Your task to perform on an android device: Clear all items from cart on amazon. Add lg ultragear to the cart on amazon Image 0: 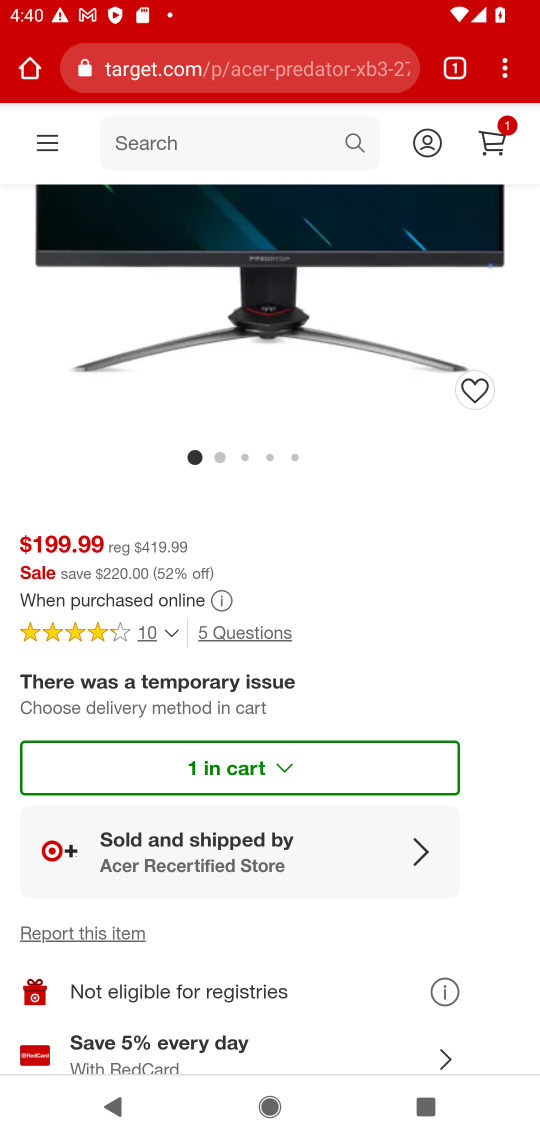
Step 0: press home button
Your task to perform on an android device: Clear all items from cart on amazon. Add lg ultragear to the cart on amazon Image 1: 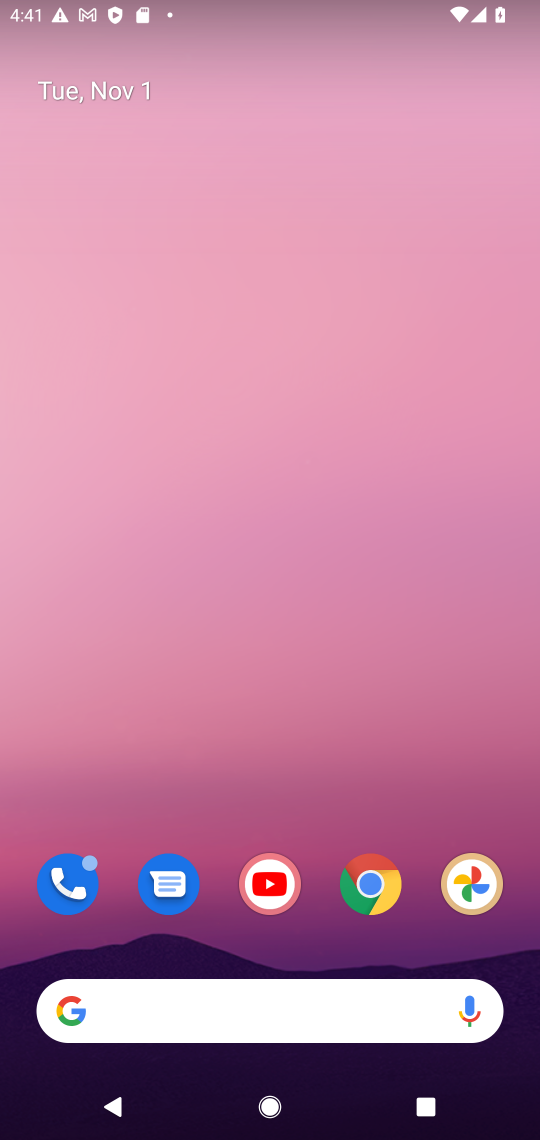
Step 1: click (374, 882)
Your task to perform on an android device: Clear all items from cart on amazon. Add lg ultragear to the cart on amazon Image 2: 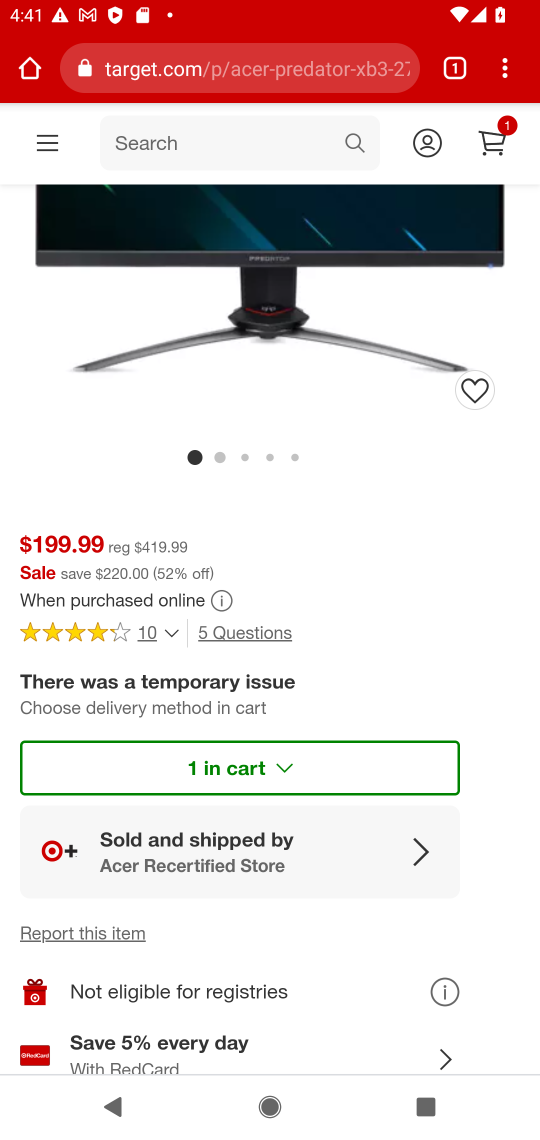
Step 2: click (285, 61)
Your task to perform on an android device: Clear all items from cart on amazon. Add lg ultragear to the cart on amazon Image 3: 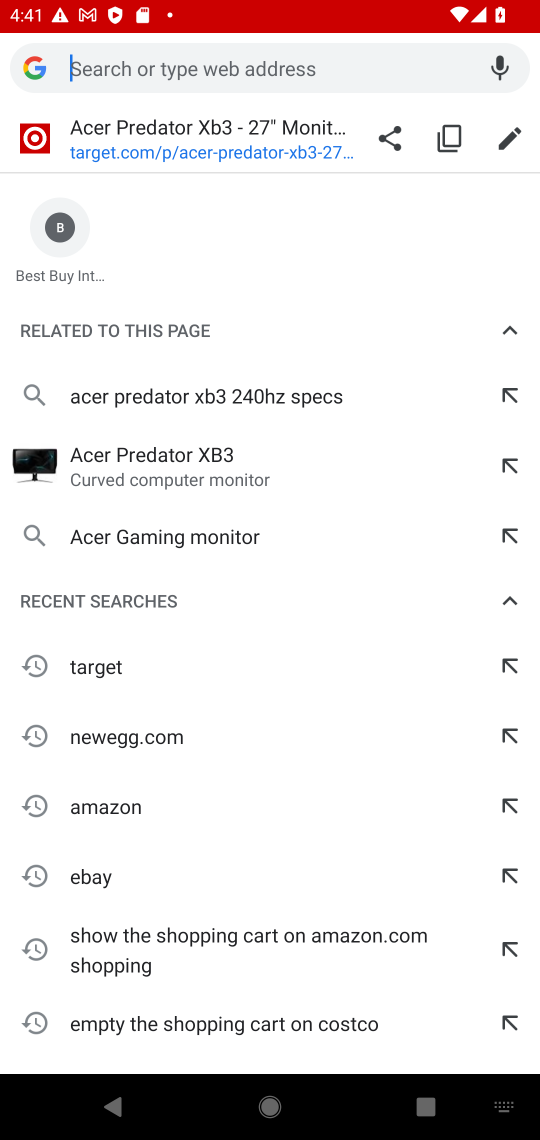
Step 3: type "amazon"
Your task to perform on an android device: Clear all items from cart on amazon. Add lg ultragear to the cart on amazon Image 4: 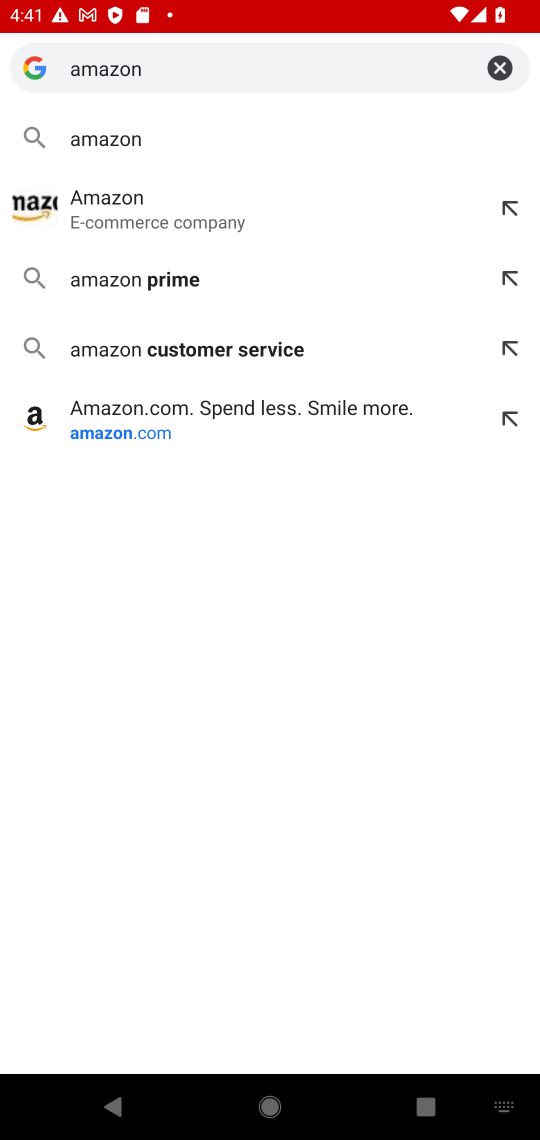
Step 4: click (131, 148)
Your task to perform on an android device: Clear all items from cart on amazon. Add lg ultragear to the cart on amazon Image 5: 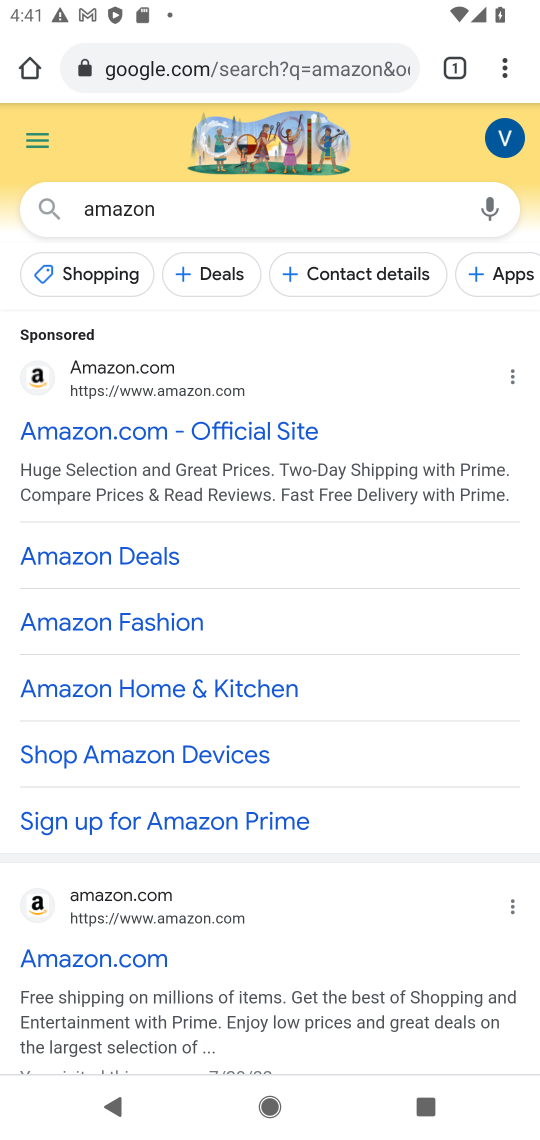
Step 5: click (143, 425)
Your task to perform on an android device: Clear all items from cart on amazon. Add lg ultragear to the cart on amazon Image 6: 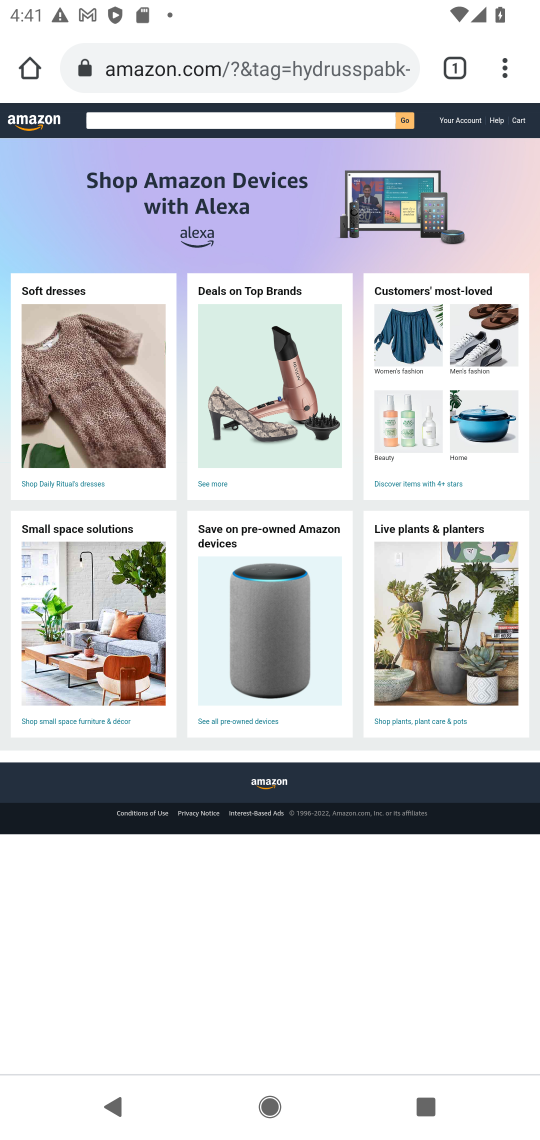
Step 6: click (232, 117)
Your task to perform on an android device: Clear all items from cart on amazon. Add lg ultragear to the cart on amazon Image 7: 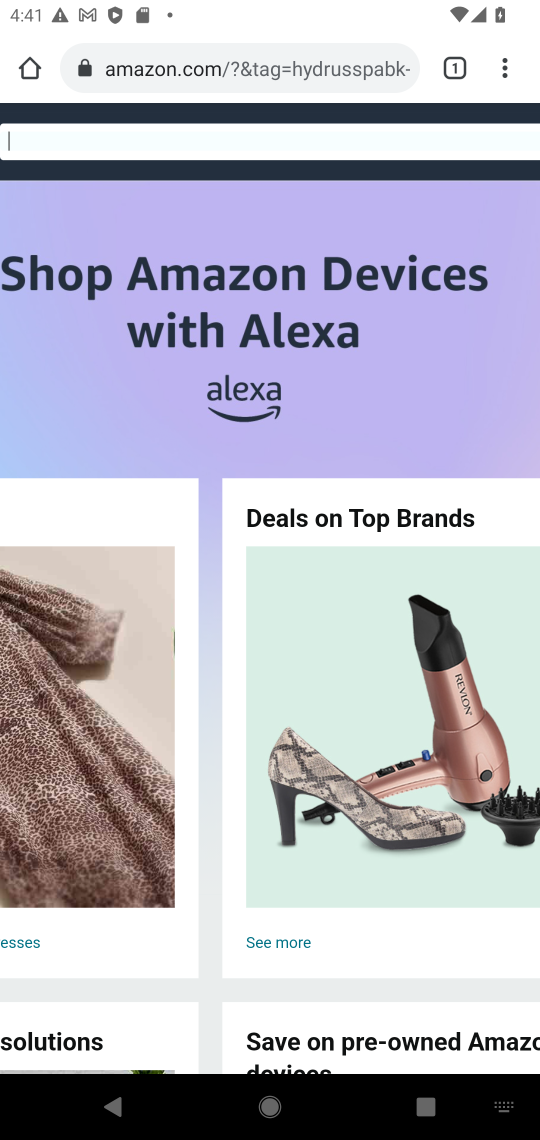
Step 7: type "lg ultragear"
Your task to perform on an android device: Clear all items from cart on amazon. Add lg ultragear to the cart on amazon Image 8: 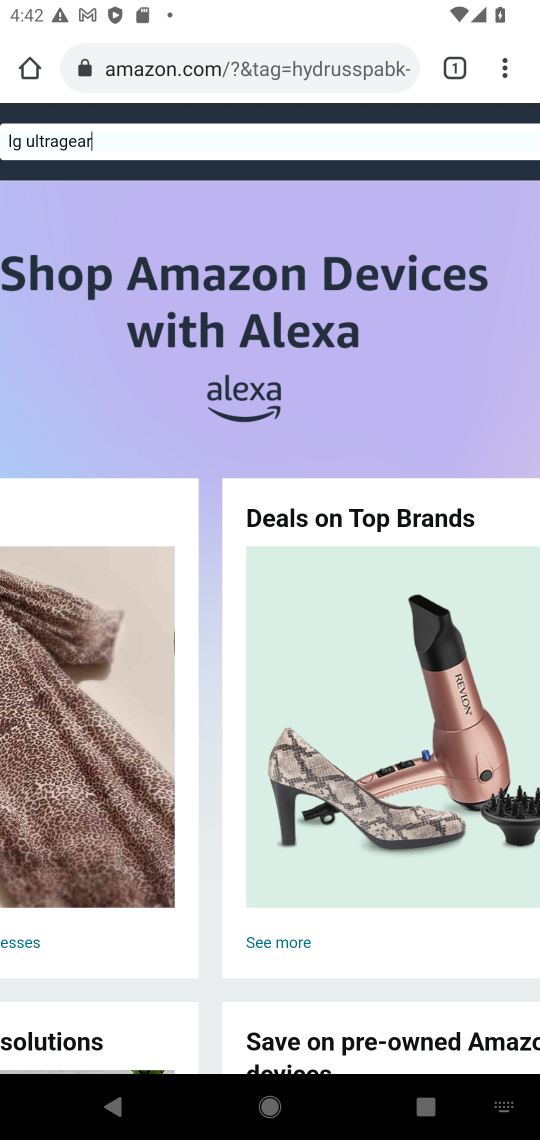
Step 8: drag from (385, 248) to (78, 216)
Your task to perform on an android device: Clear all items from cart on amazon. Add lg ultragear to the cart on amazon Image 9: 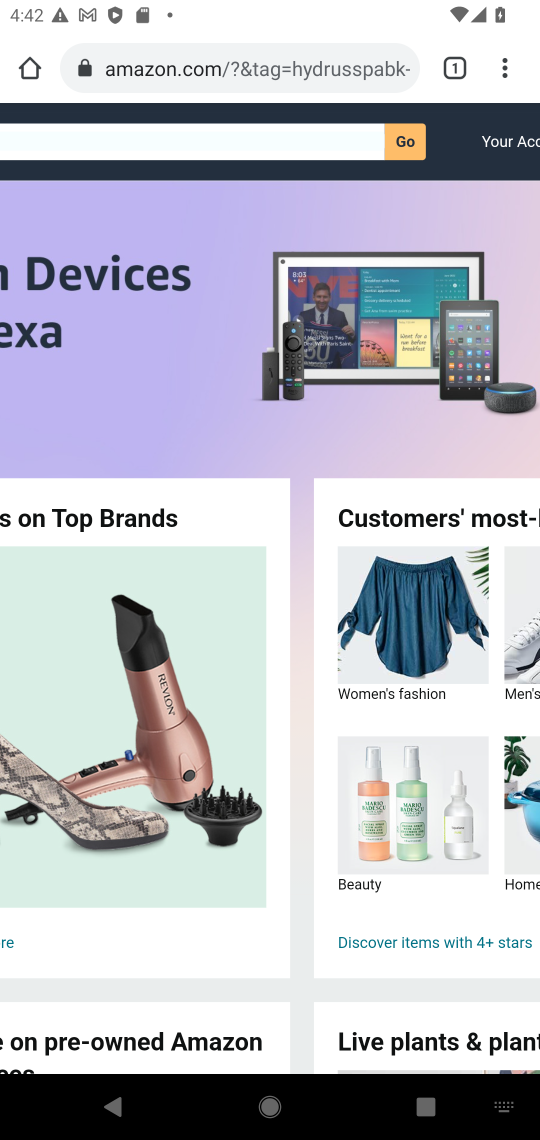
Step 9: click (406, 137)
Your task to perform on an android device: Clear all items from cart on amazon. Add lg ultragear to the cart on amazon Image 10: 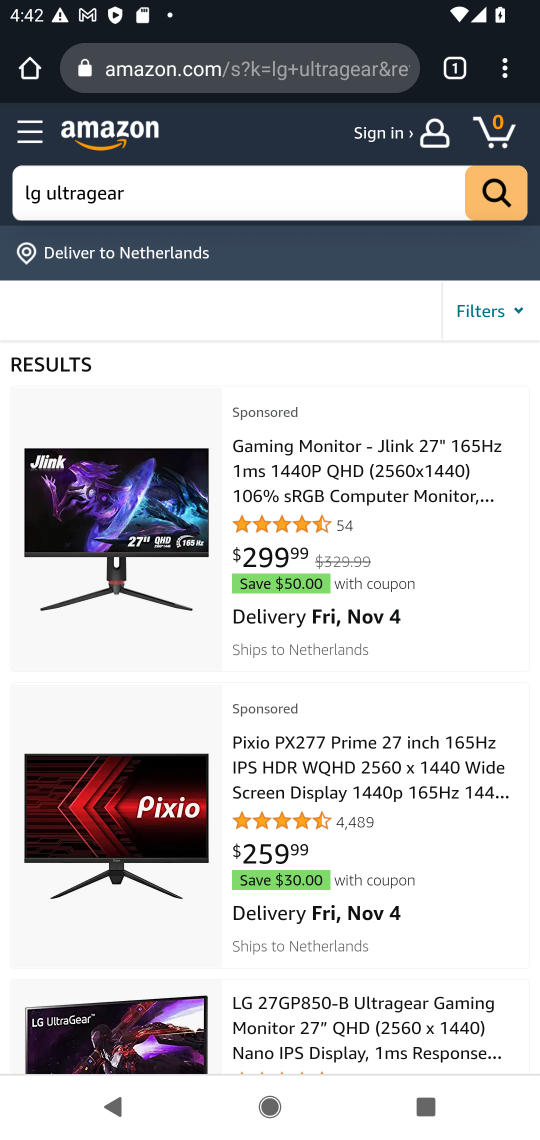
Step 10: click (387, 489)
Your task to perform on an android device: Clear all items from cart on amazon. Add lg ultragear to the cart on amazon Image 11: 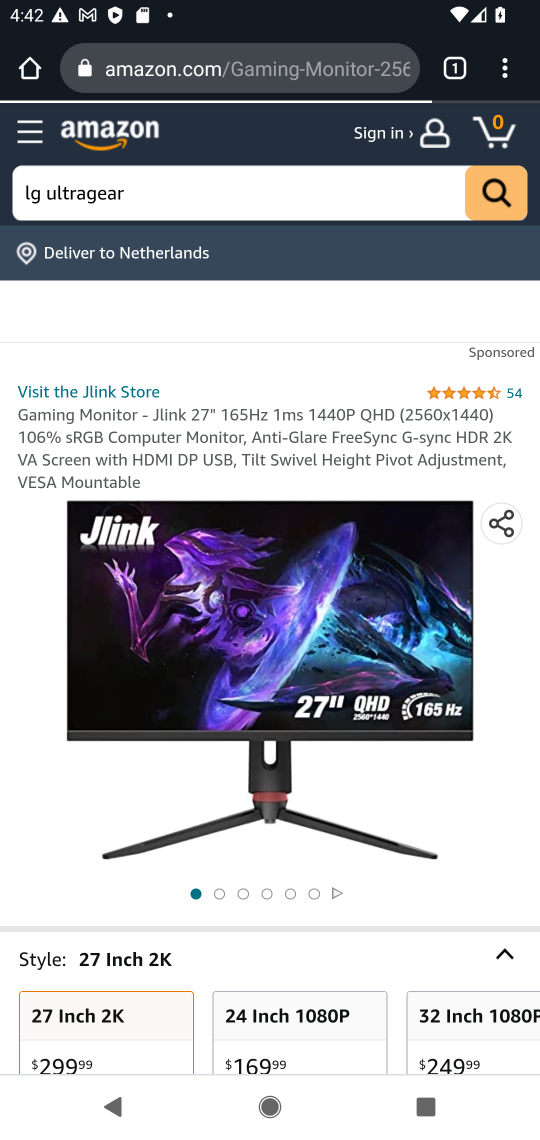
Step 11: drag from (312, 815) to (283, 361)
Your task to perform on an android device: Clear all items from cart on amazon. Add lg ultragear to the cart on amazon Image 12: 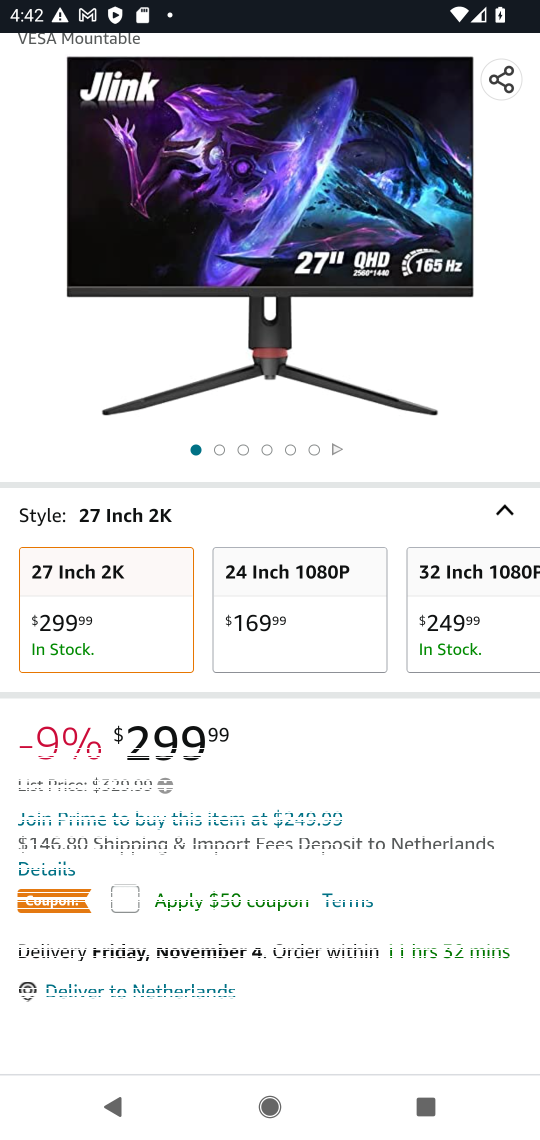
Step 12: drag from (275, 832) to (269, 450)
Your task to perform on an android device: Clear all items from cart on amazon. Add lg ultragear to the cart on amazon Image 13: 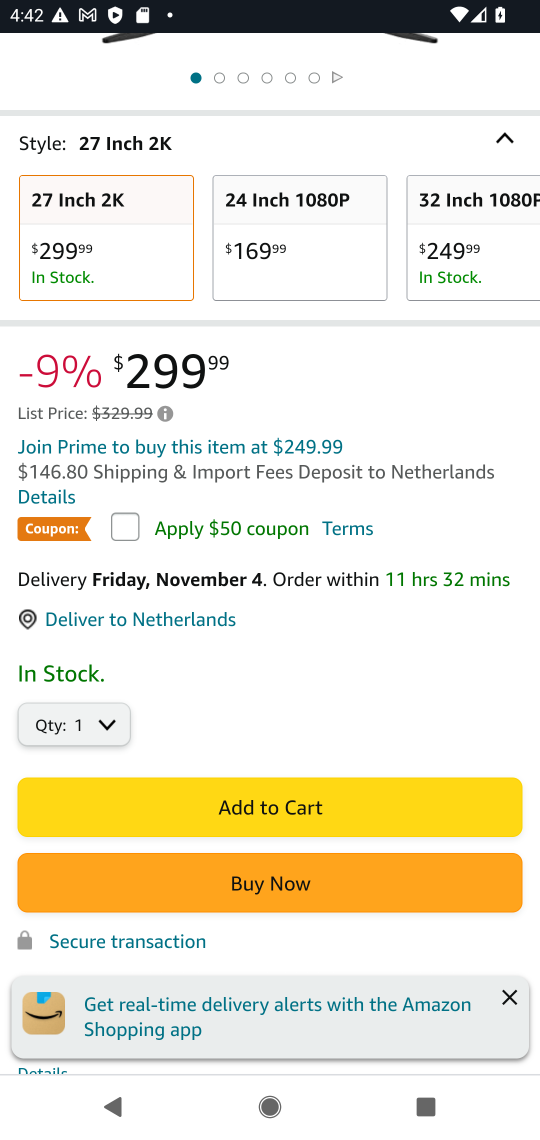
Step 13: click (307, 812)
Your task to perform on an android device: Clear all items from cart on amazon. Add lg ultragear to the cart on amazon Image 14: 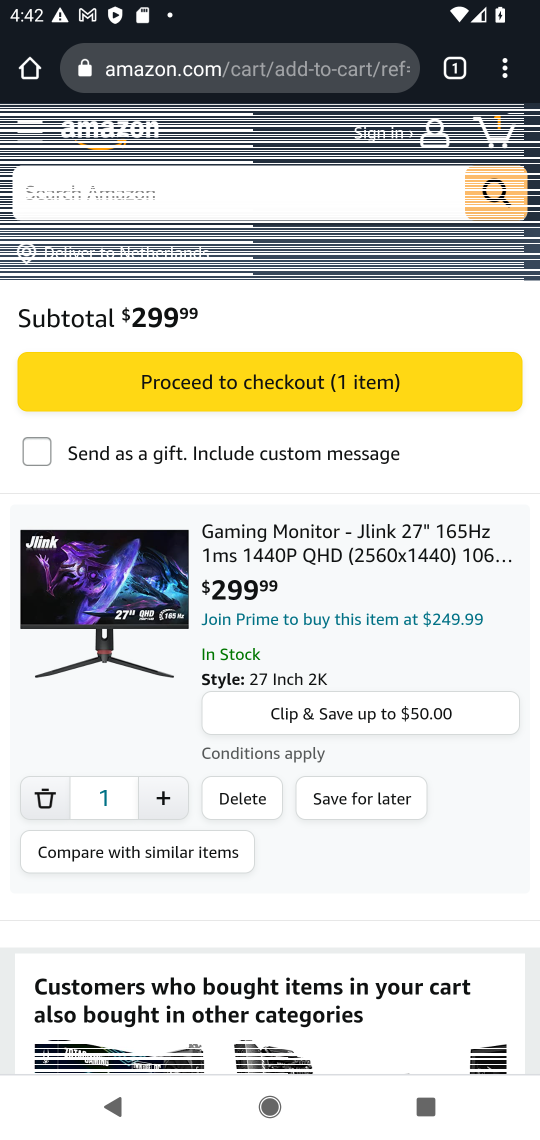
Step 14: task complete